Your task to perform on an android device: Open Google Image 0: 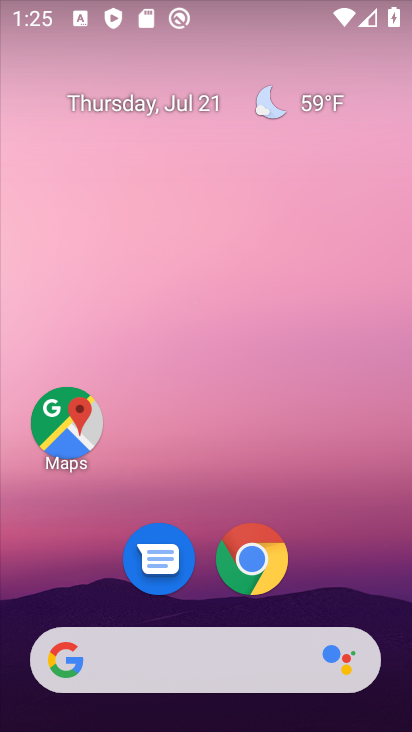
Step 0: drag from (307, 584) to (339, 76)
Your task to perform on an android device: Open Google Image 1: 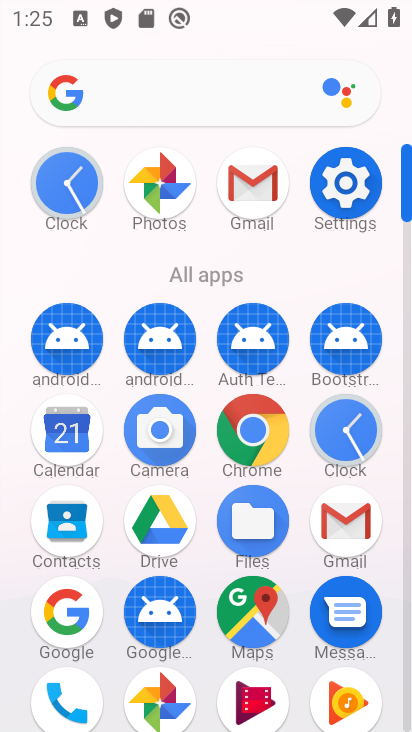
Step 1: drag from (268, 517) to (252, 58)
Your task to perform on an android device: Open Google Image 2: 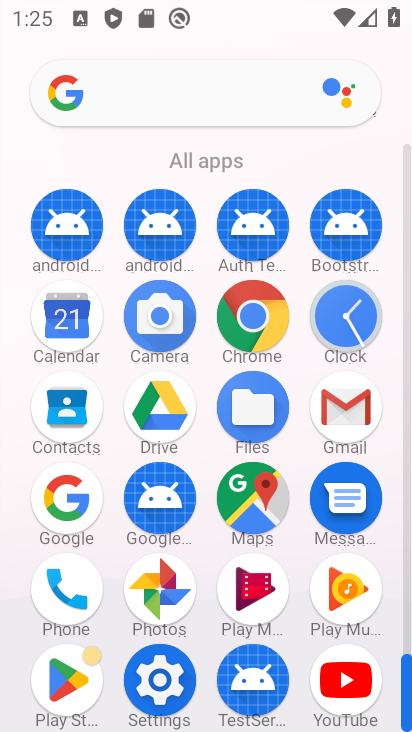
Step 2: click (80, 498)
Your task to perform on an android device: Open Google Image 3: 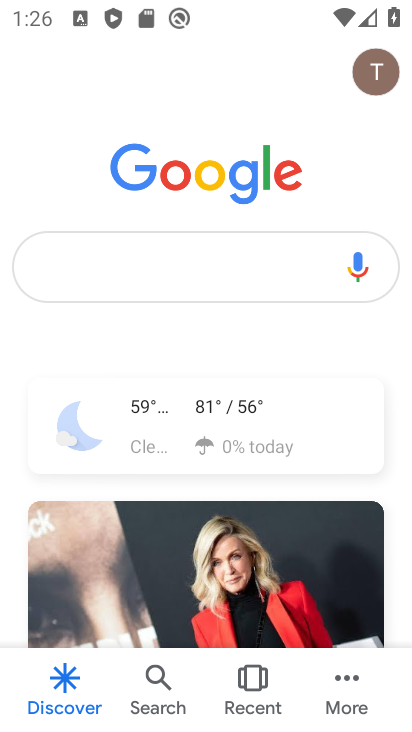
Step 3: task complete